Your task to perform on an android device: change the clock style Image 0: 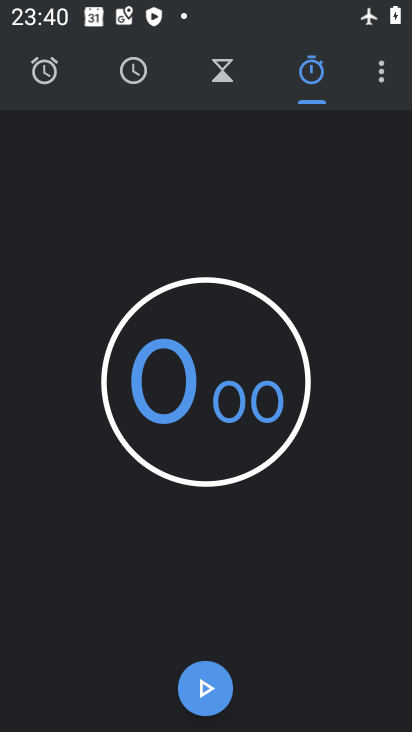
Step 0: click (383, 66)
Your task to perform on an android device: change the clock style Image 1: 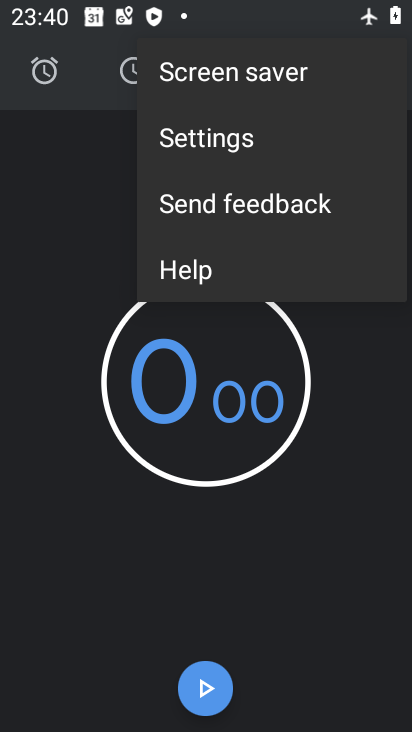
Step 1: click (255, 128)
Your task to perform on an android device: change the clock style Image 2: 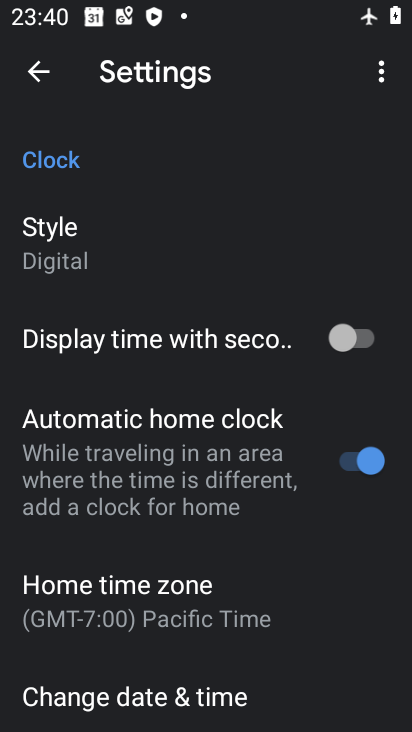
Step 2: click (96, 222)
Your task to perform on an android device: change the clock style Image 3: 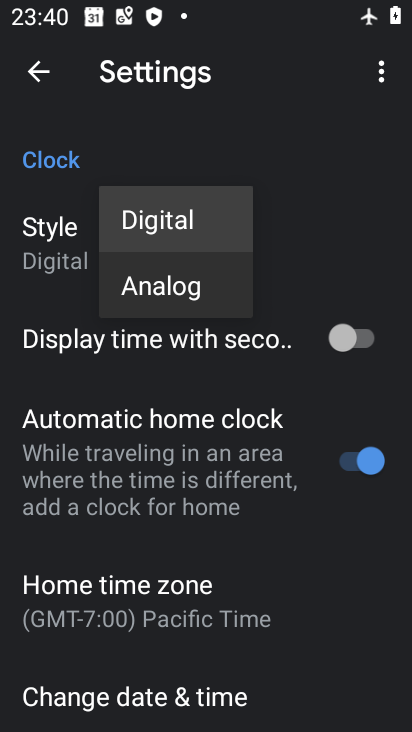
Step 3: click (151, 284)
Your task to perform on an android device: change the clock style Image 4: 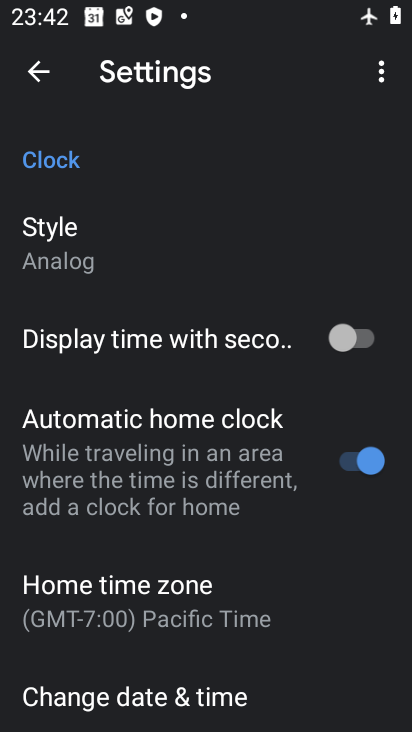
Step 4: task complete